Your task to perform on an android device: change the clock display to analog Image 0: 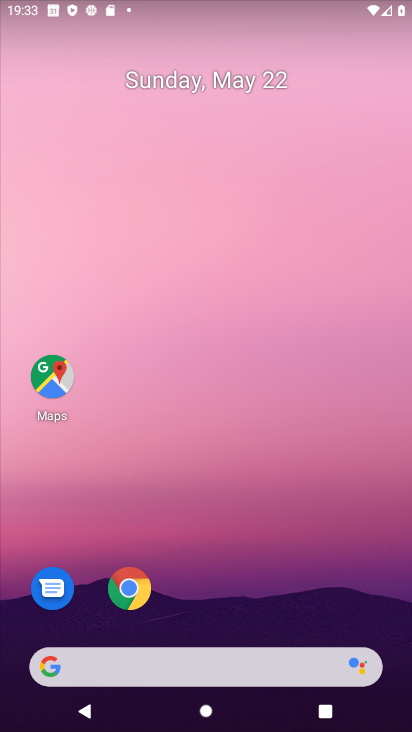
Step 0: drag from (306, 545) to (247, 56)
Your task to perform on an android device: change the clock display to analog Image 1: 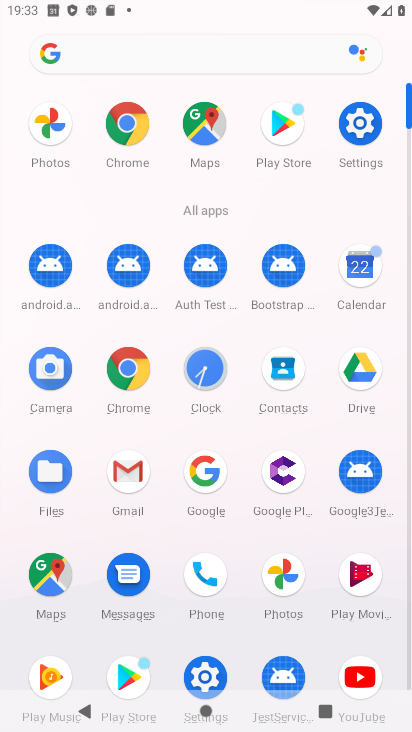
Step 1: click (207, 368)
Your task to perform on an android device: change the clock display to analog Image 2: 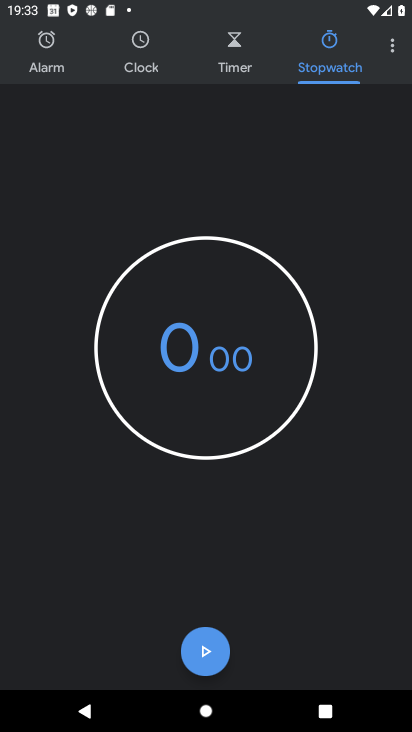
Step 2: click (389, 42)
Your task to perform on an android device: change the clock display to analog Image 3: 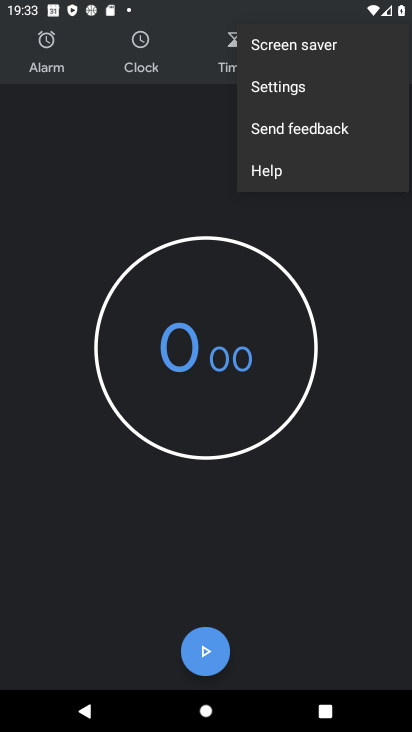
Step 3: click (288, 82)
Your task to perform on an android device: change the clock display to analog Image 4: 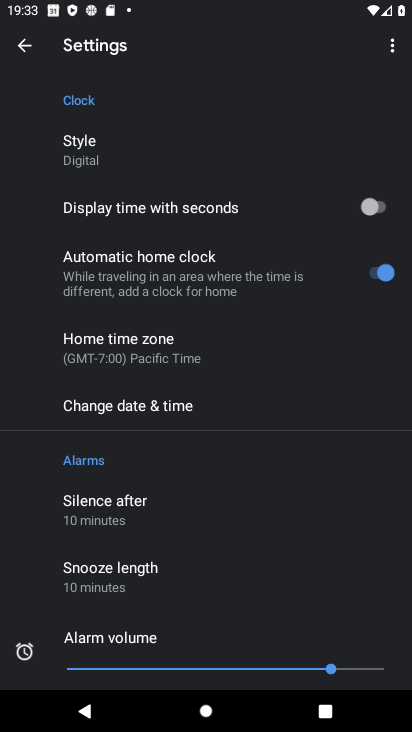
Step 4: click (78, 136)
Your task to perform on an android device: change the clock display to analog Image 5: 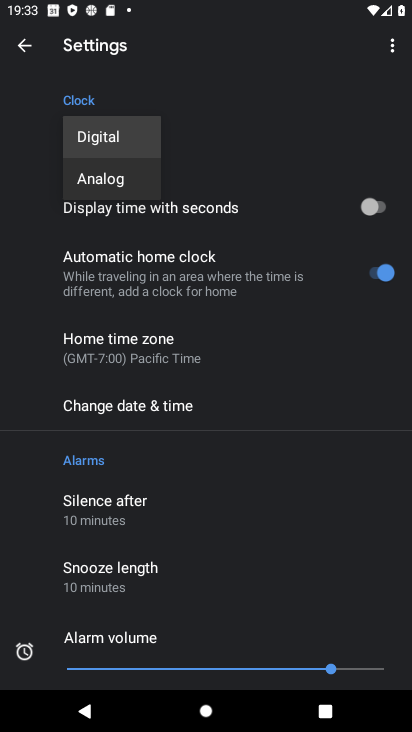
Step 5: click (107, 177)
Your task to perform on an android device: change the clock display to analog Image 6: 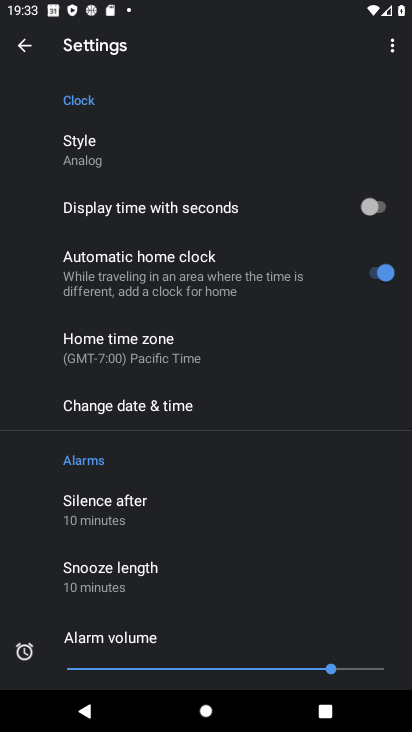
Step 6: task complete